Your task to perform on an android device: toggle data saver in the chrome app Image 0: 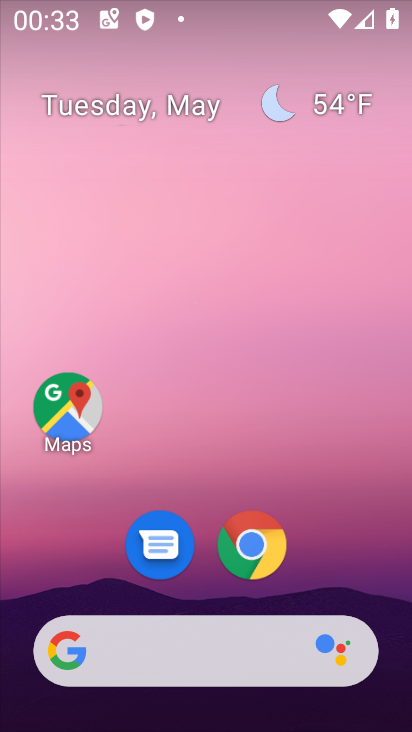
Step 0: click (270, 540)
Your task to perform on an android device: toggle data saver in the chrome app Image 1: 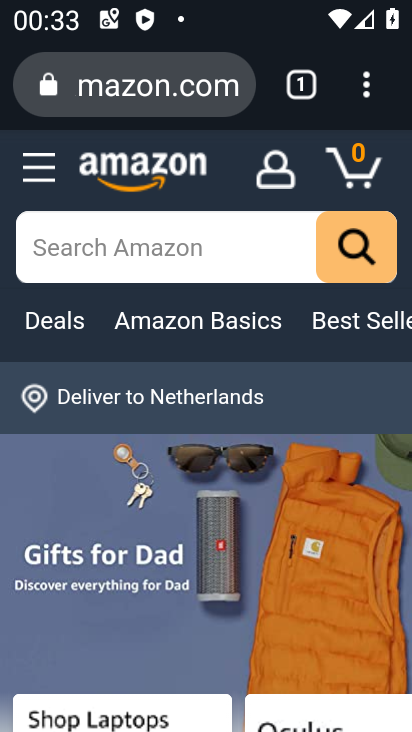
Step 1: click (366, 93)
Your task to perform on an android device: toggle data saver in the chrome app Image 2: 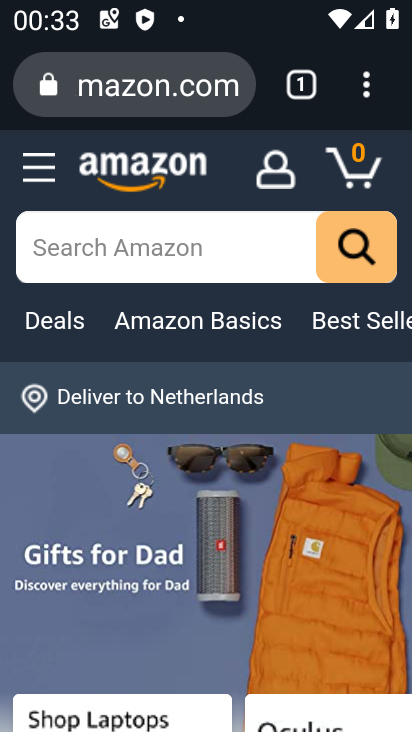
Step 2: click (366, 93)
Your task to perform on an android device: toggle data saver in the chrome app Image 3: 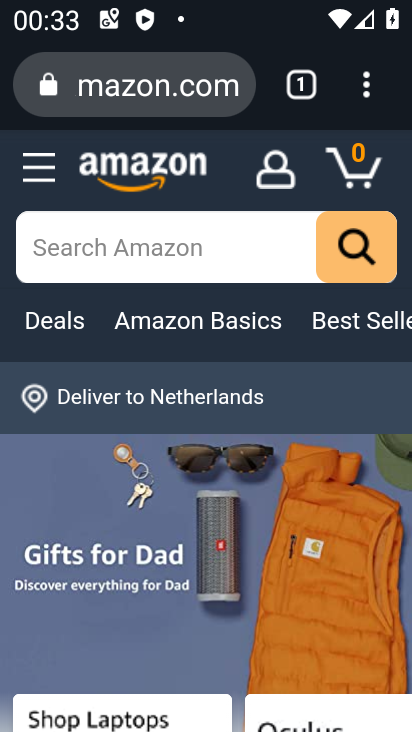
Step 3: click (366, 94)
Your task to perform on an android device: toggle data saver in the chrome app Image 4: 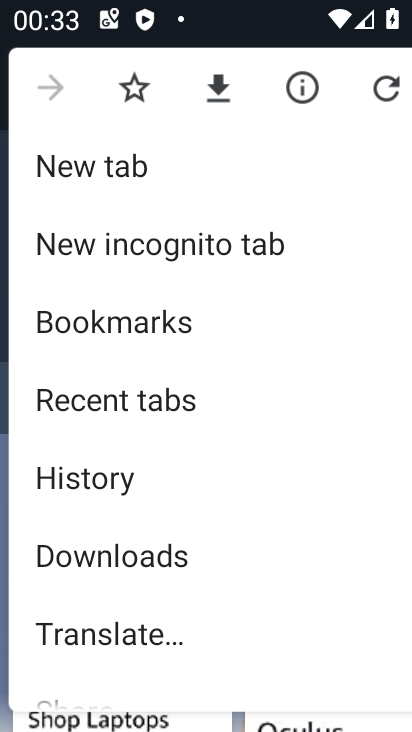
Step 4: drag from (197, 610) to (192, 284)
Your task to perform on an android device: toggle data saver in the chrome app Image 5: 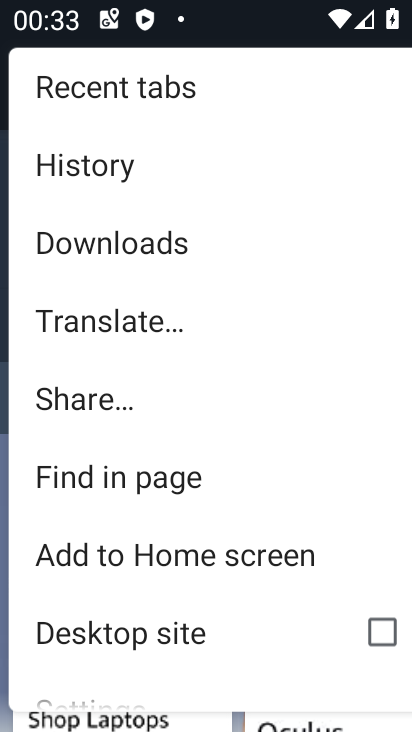
Step 5: drag from (165, 642) to (150, 328)
Your task to perform on an android device: toggle data saver in the chrome app Image 6: 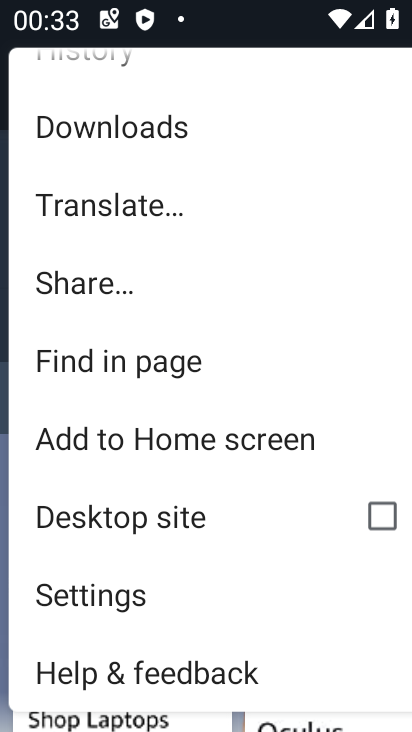
Step 6: click (134, 599)
Your task to perform on an android device: toggle data saver in the chrome app Image 7: 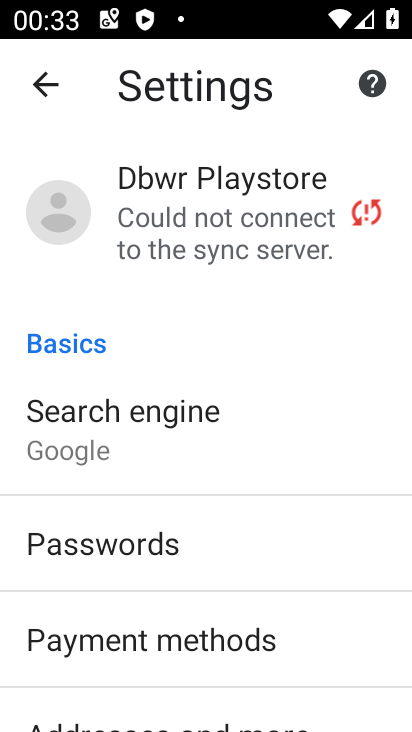
Step 7: drag from (194, 641) to (178, 228)
Your task to perform on an android device: toggle data saver in the chrome app Image 8: 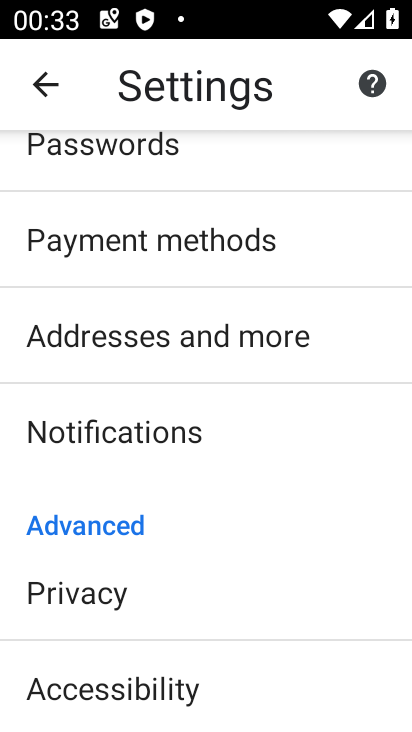
Step 8: drag from (170, 653) to (174, 251)
Your task to perform on an android device: toggle data saver in the chrome app Image 9: 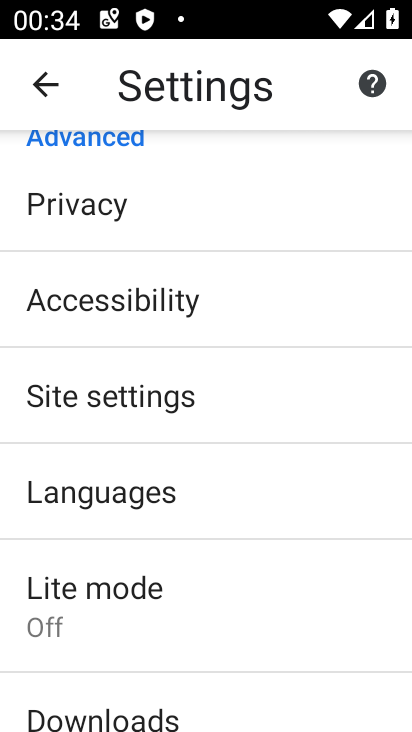
Step 9: click (192, 624)
Your task to perform on an android device: toggle data saver in the chrome app Image 10: 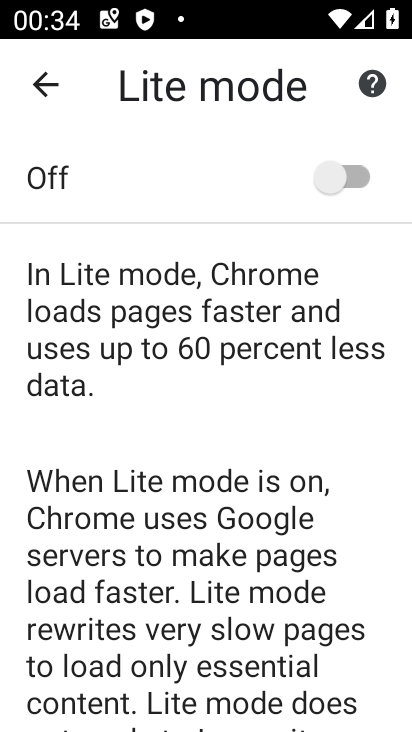
Step 10: click (346, 185)
Your task to perform on an android device: toggle data saver in the chrome app Image 11: 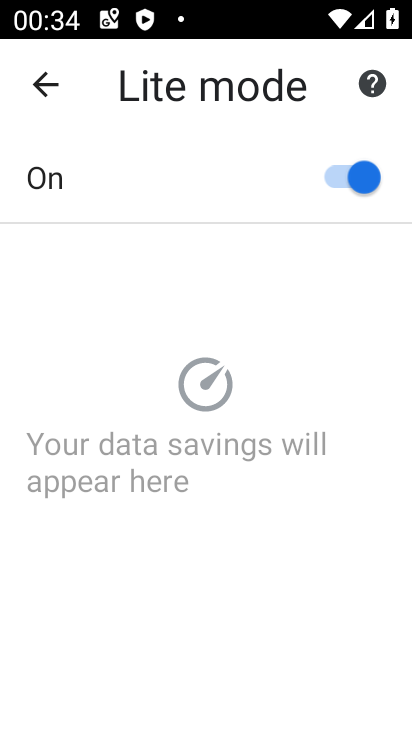
Step 11: task complete